Your task to perform on an android device: delete a single message in the gmail app Image 0: 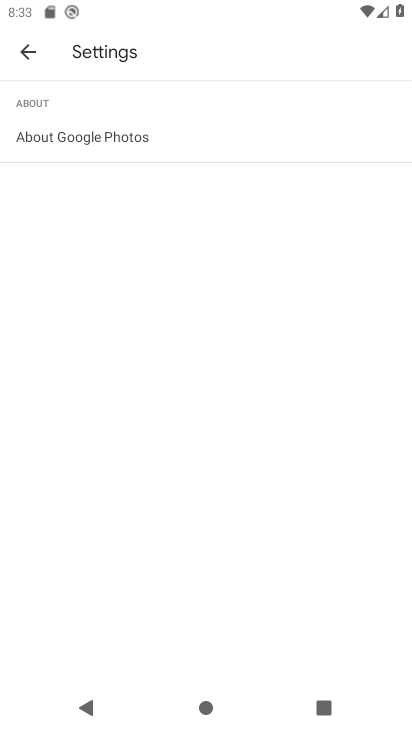
Step 0: press home button
Your task to perform on an android device: delete a single message in the gmail app Image 1: 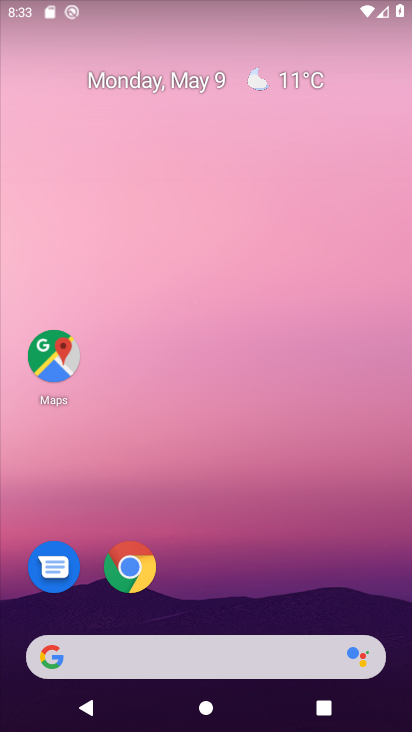
Step 1: drag from (267, 540) to (322, 28)
Your task to perform on an android device: delete a single message in the gmail app Image 2: 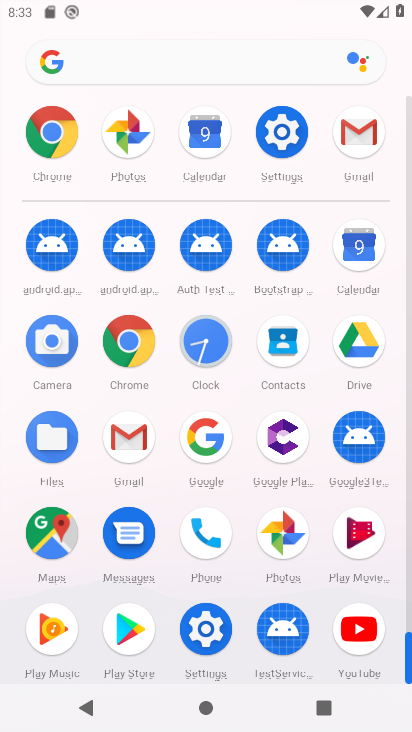
Step 2: click (357, 142)
Your task to perform on an android device: delete a single message in the gmail app Image 3: 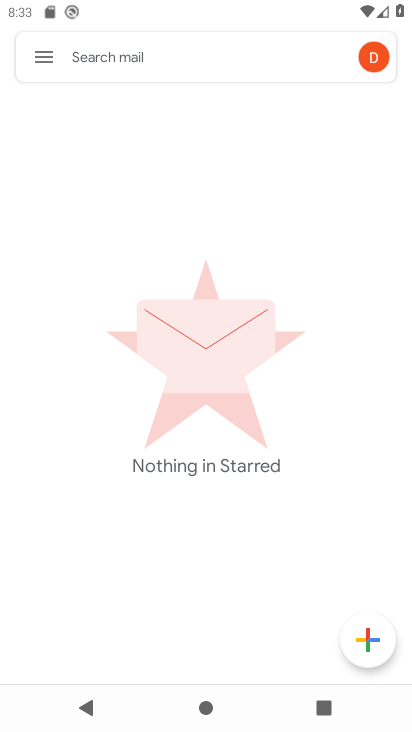
Step 3: click (44, 53)
Your task to perform on an android device: delete a single message in the gmail app Image 4: 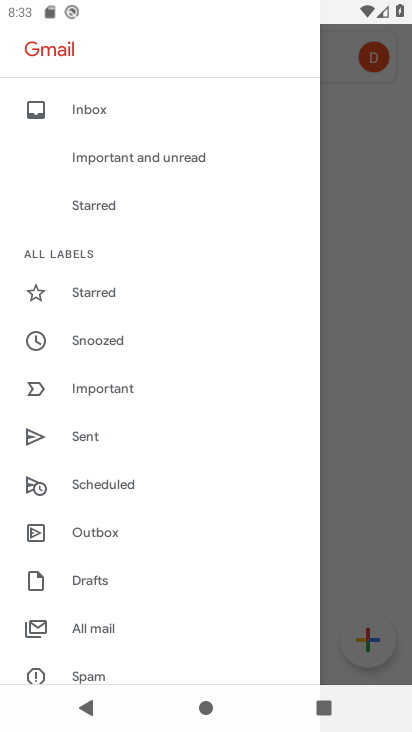
Step 4: click (108, 623)
Your task to perform on an android device: delete a single message in the gmail app Image 5: 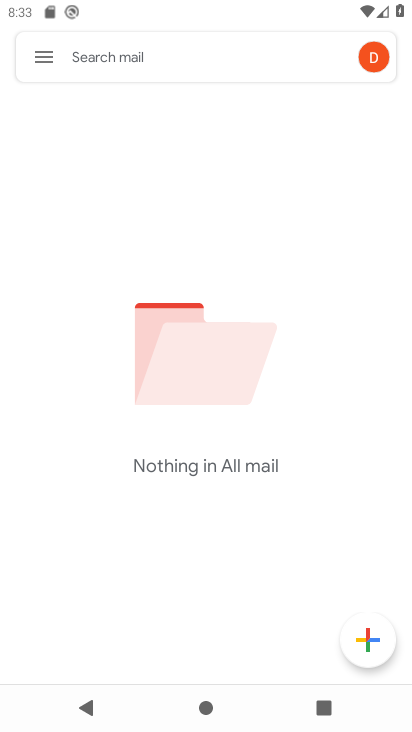
Step 5: task complete